Your task to perform on an android device: Open calendar and show me the first week of next month Image 0: 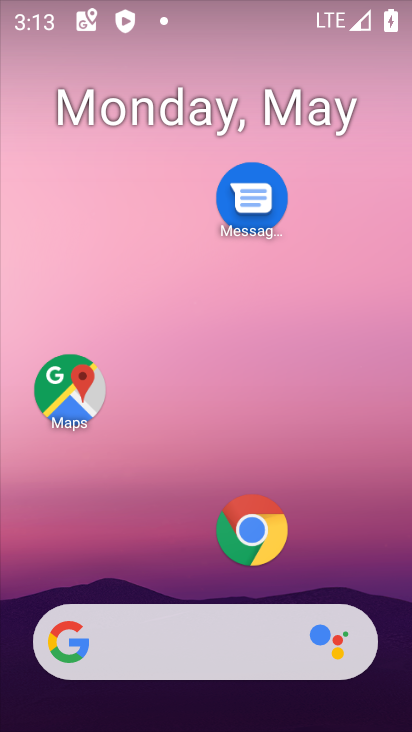
Step 0: drag from (176, 531) to (209, 30)
Your task to perform on an android device: Open calendar and show me the first week of next month Image 1: 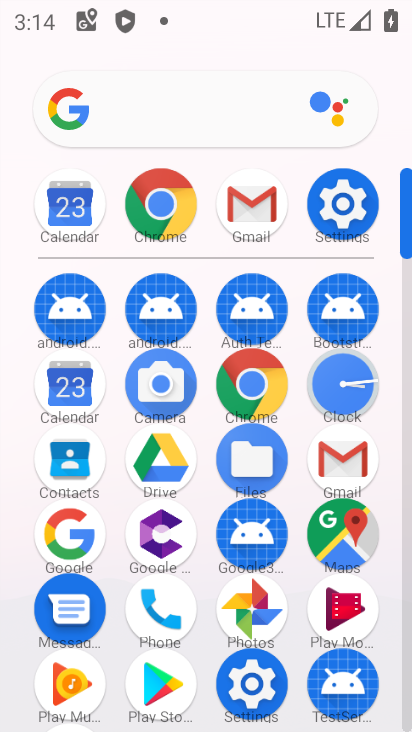
Step 1: click (67, 404)
Your task to perform on an android device: Open calendar and show me the first week of next month Image 2: 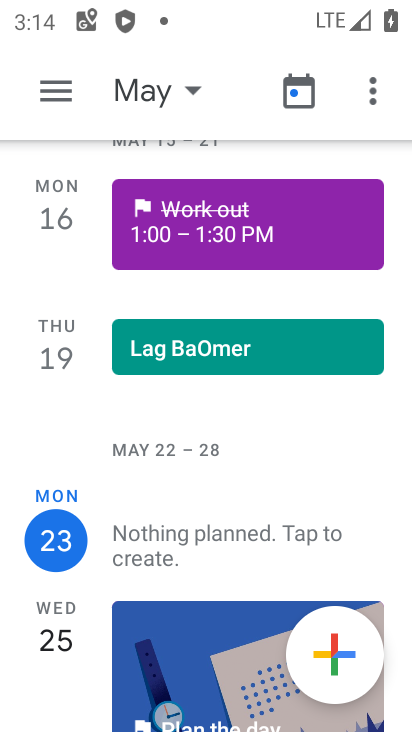
Step 2: click (169, 84)
Your task to perform on an android device: Open calendar and show me the first week of next month Image 3: 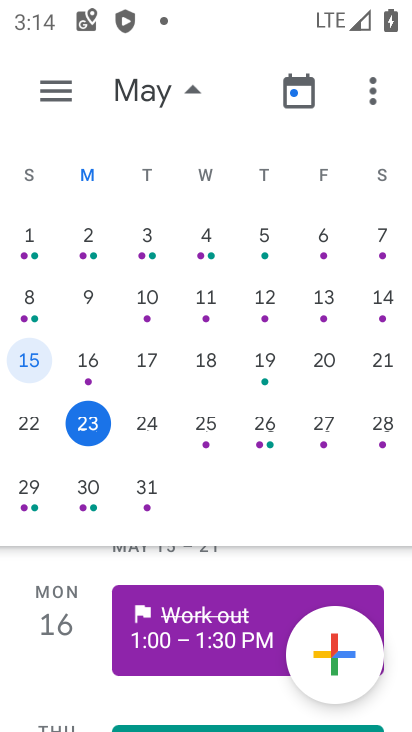
Step 3: drag from (367, 293) to (45, 293)
Your task to perform on an android device: Open calendar and show me the first week of next month Image 4: 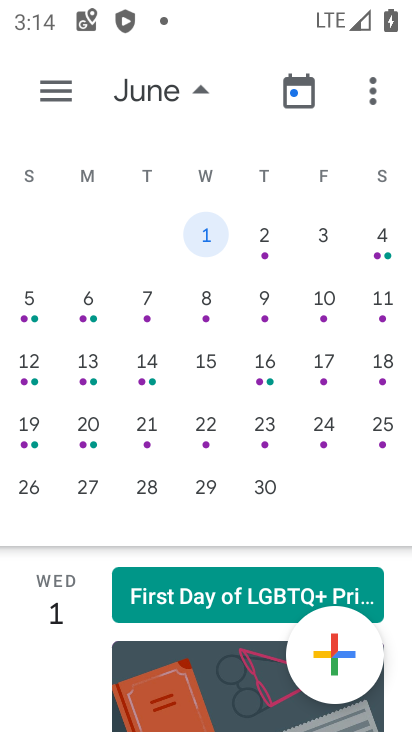
Step 4: click (219, 240)
Your task to perform on an android device: Open calendar and show me the first week of next month Image 5: 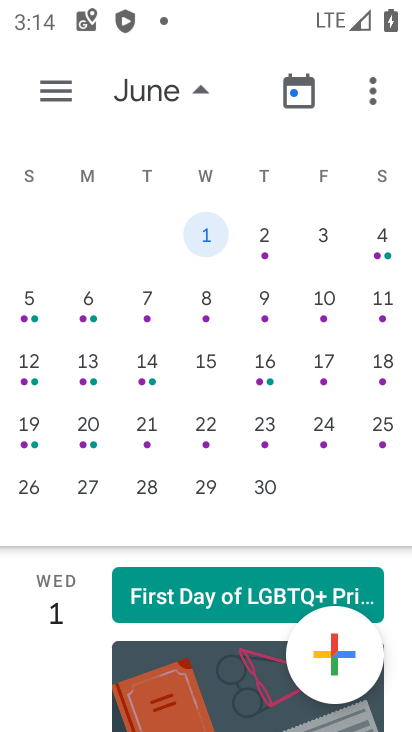
Step 5: task complete